Your task to perform on an android device: toggle data saver in the chrome app Image 0: 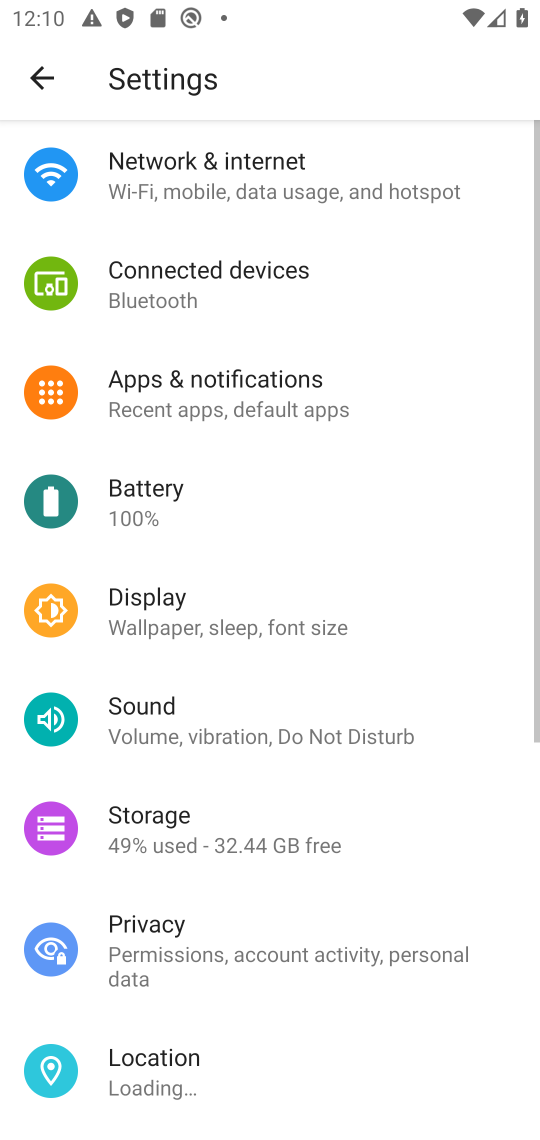
Step 0: press home button
Your task to perform on an android device: toggle data saver in the chrome app Image 1: 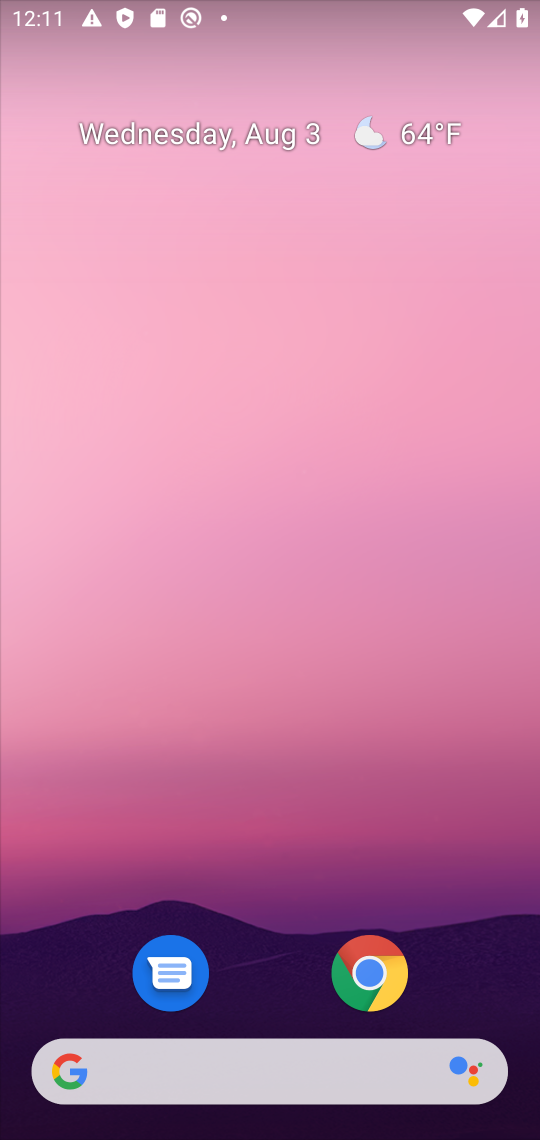
Step 1: click (374, 974)
Your task to perform on an android device: toggle data saver in the chrome app Image 2: 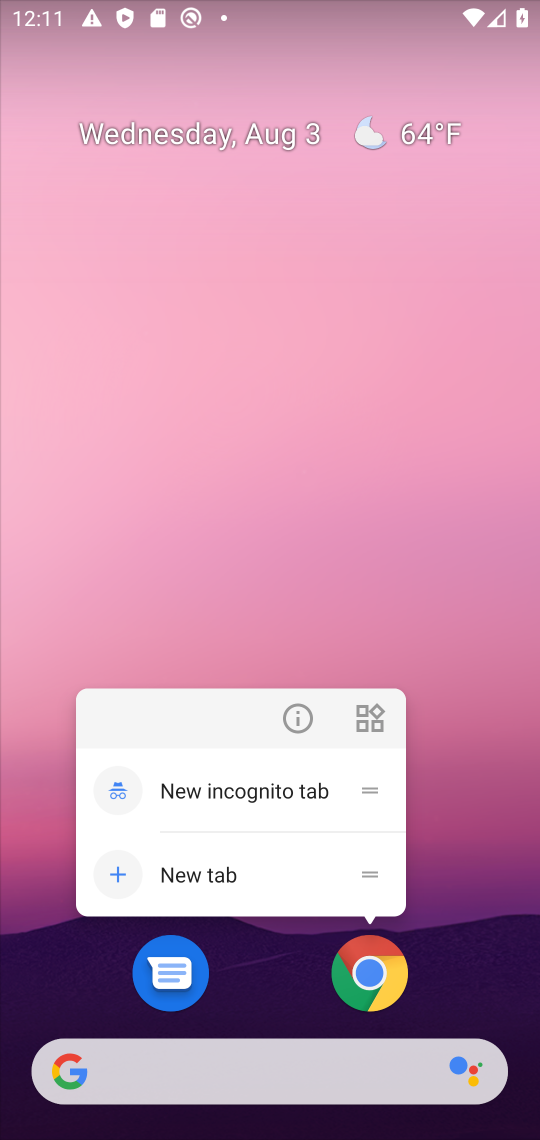
Step 2: click (374, 974)
Your task to perform on an android device: toggle data saver in the chrome app Image 3: 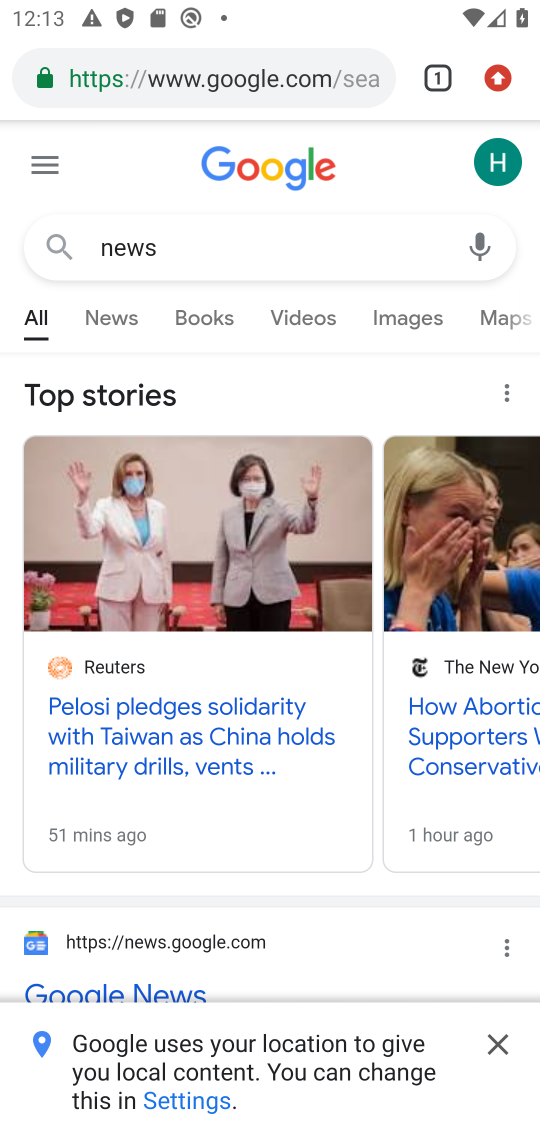
Step 3: drag from (498, 88) to (254, 952)
Your task to perform on an android device: toggle data saver in the chrome app Image 4: 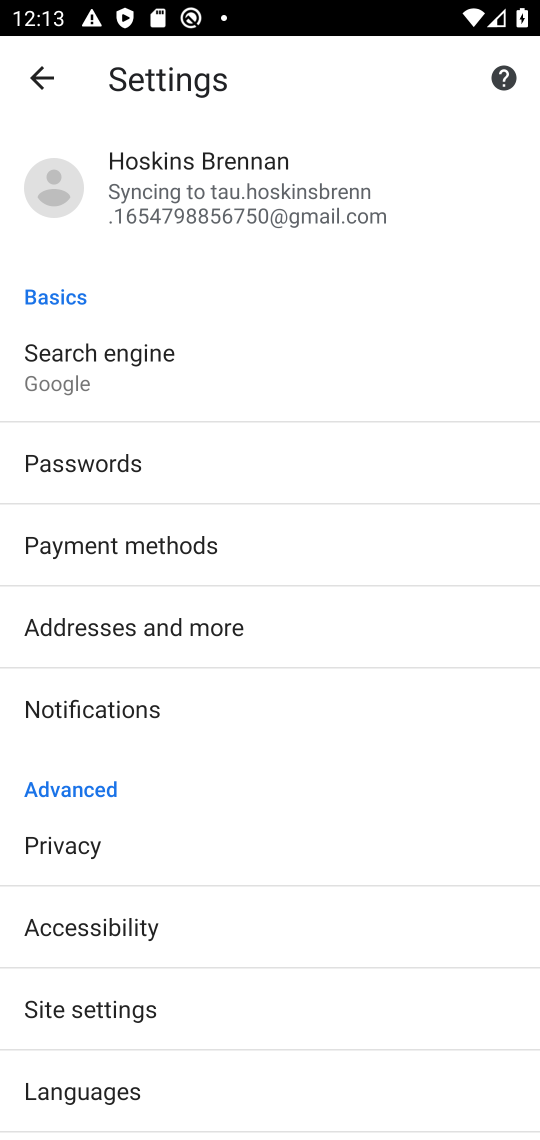
Step 4: drag from (170, 1036) to (85, 414)
Your task to perform on an android device: toggle data saver in the chrome app Image 5: 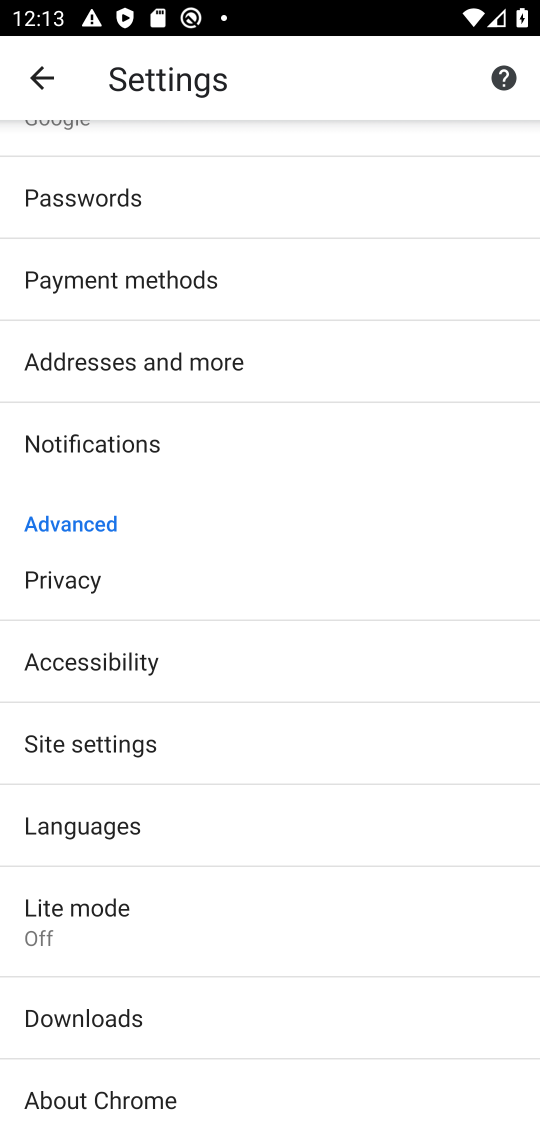
Step 5: click (163, 921)
Your task to perform on an android device: toggle data saver in the chrome app Image 6: 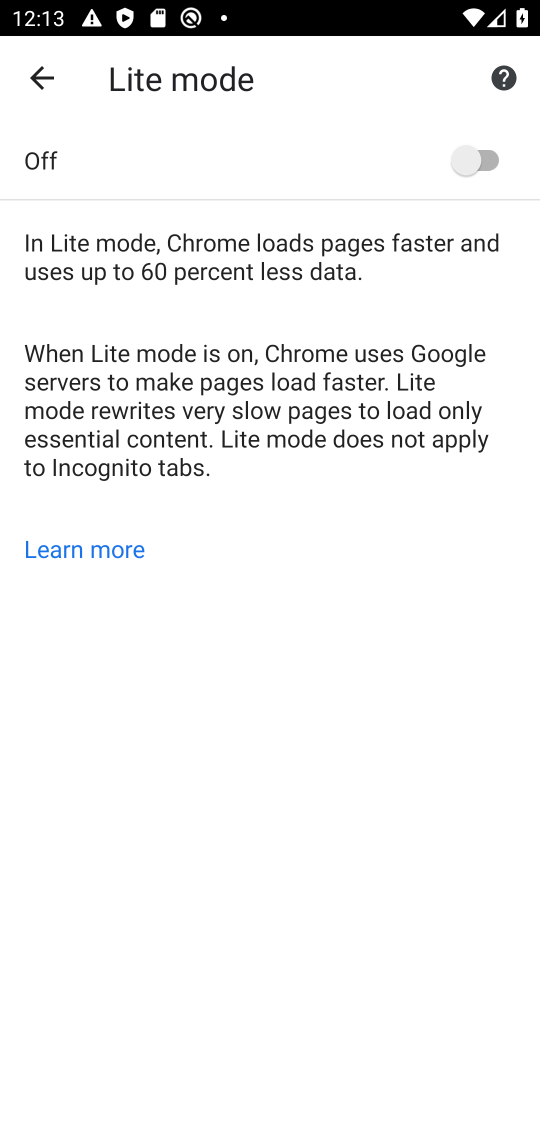
Step 6: click (478, 151)
Your task to perform on an android device: toggle data saver in the chrome app Image 7: 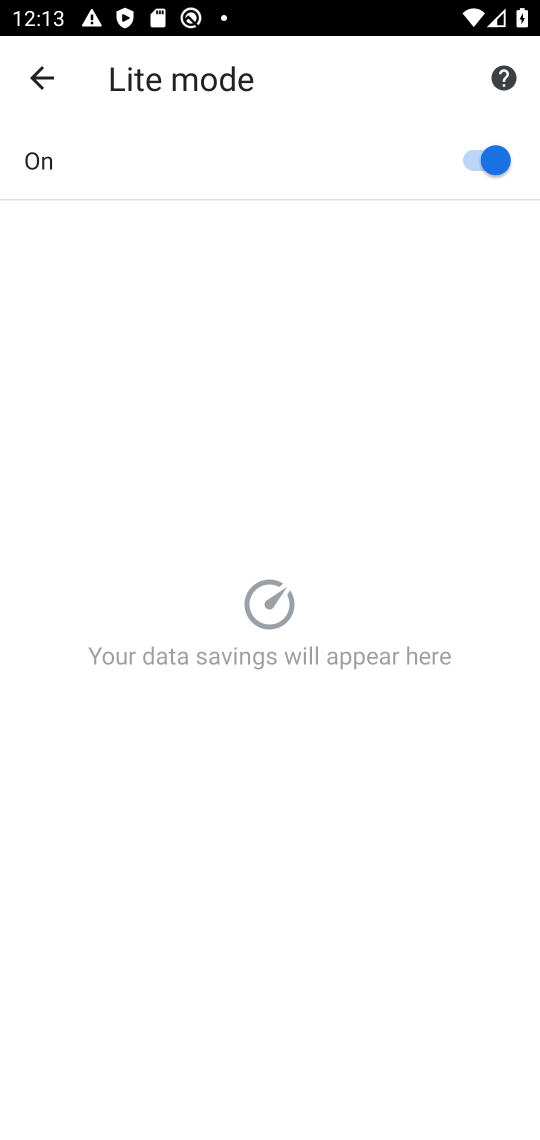
Step 7: task complete